Your task to perform on an android device: turn on javascript in the chrome app Image 0: 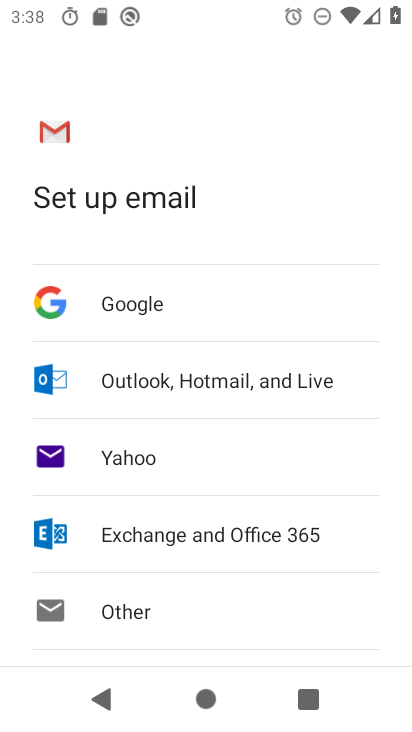
Step 0: press home button
Your task to perform on an android device: turn on javascript in the chrome app Image 1: 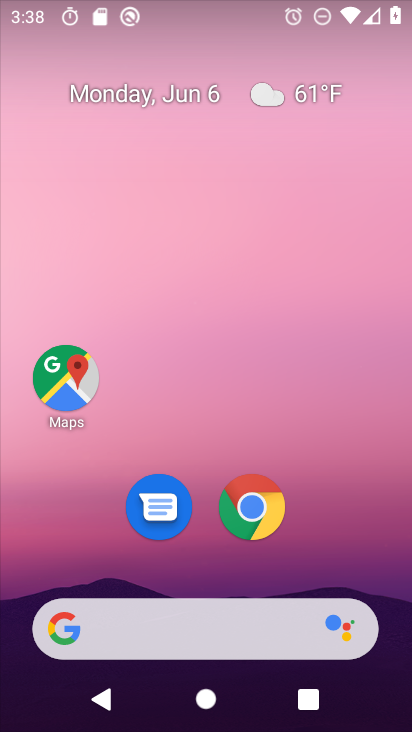
Step 1: click (256, 512)
Your task to perform on an android device: turn on javascript in the chrome app Image 2: 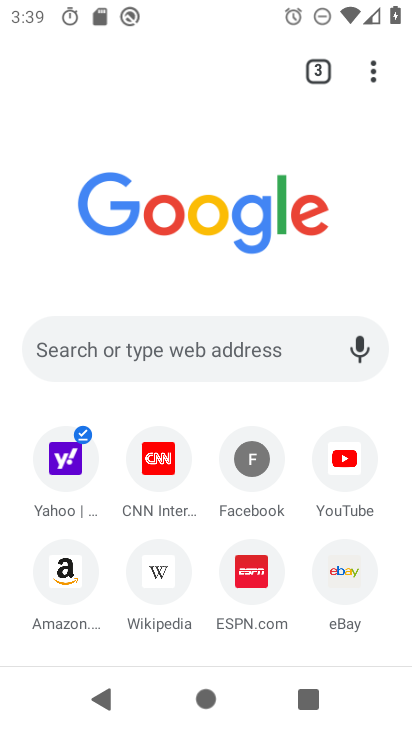
Step 2: click (378, 77)
Your task to perform on an android device: turn on javascript in the chrome app Image 3: 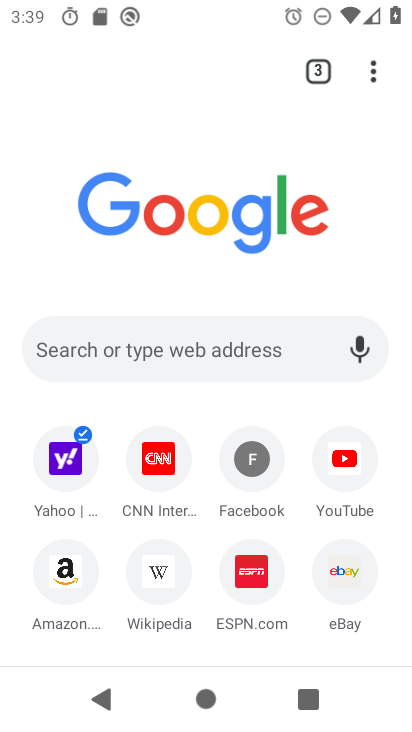
Step 3: drag from (370, 73) to (136, 510)
Your task to perform on an android device: turn on javascript in the chrome app Image 4: 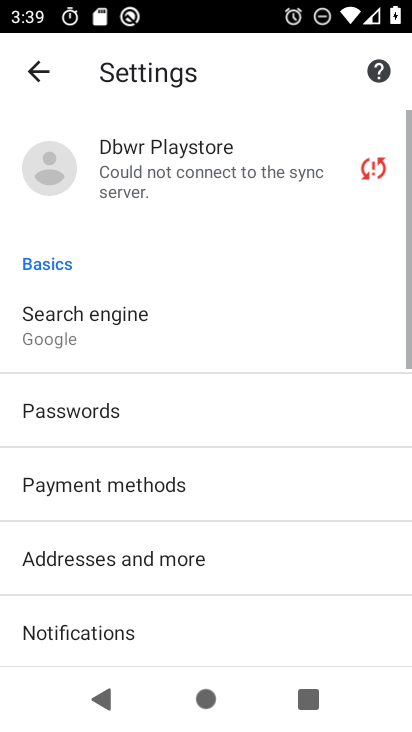
Step 4: drag from (192, 580) to (235, 308)
Your task to perform on an android device: turn on javascript in the chrome app Image 5: 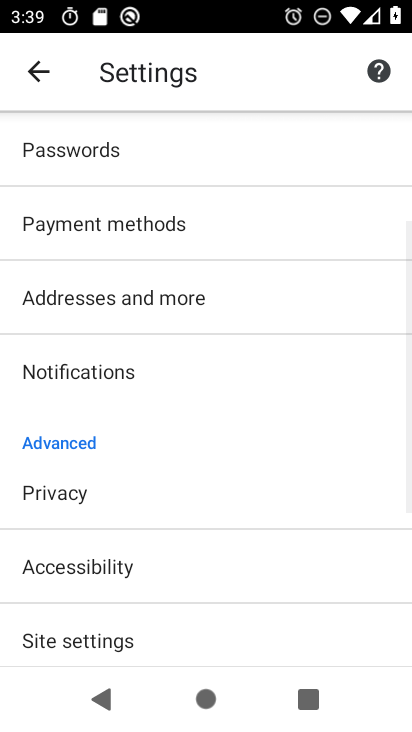
Step 5: drag from (166, 598) to (219, 389)
Your task to perform on an android device: turn on javascript in the chrome app Image 6: 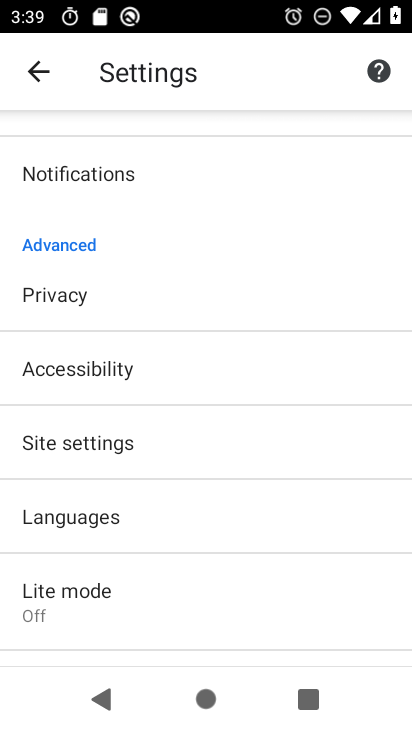
Step 6: click (134, 462)
Your task to perform on an android device: turn on javascript in the chrome app Image 7: 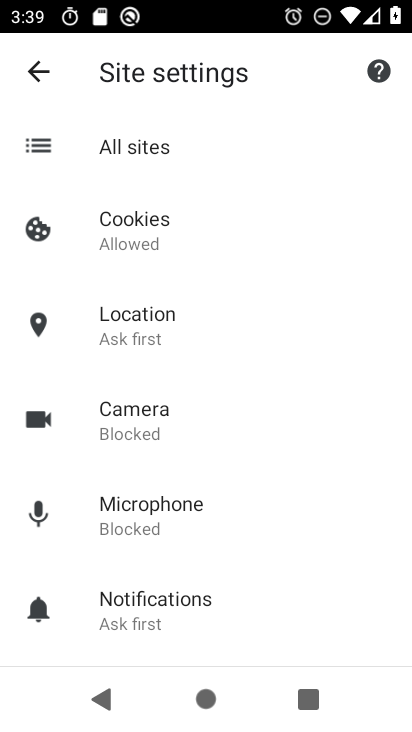
Step 7: drag from (218, 519) to (285, 246)
Your task to perform on an android device: turn on javascript in the chrome app Image 8: 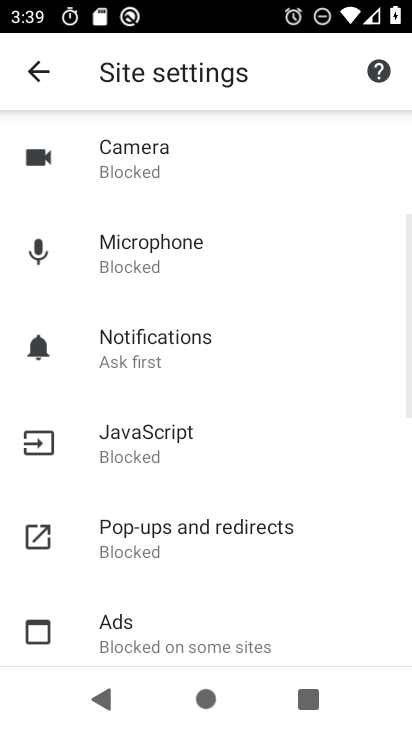
Step 8: click (179, 440)
Your task to perform on an android device: turn on javascript in the chrome app Image 9: 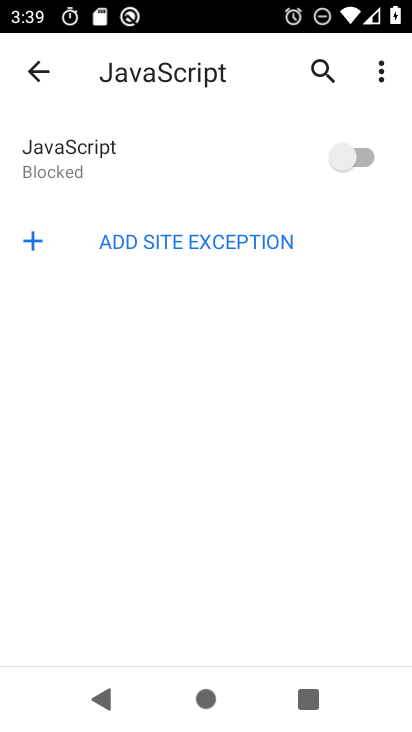
Step 9: click (371, 160)
Your task to perform on an android device: turn on javascript in the chrome app Image 10: 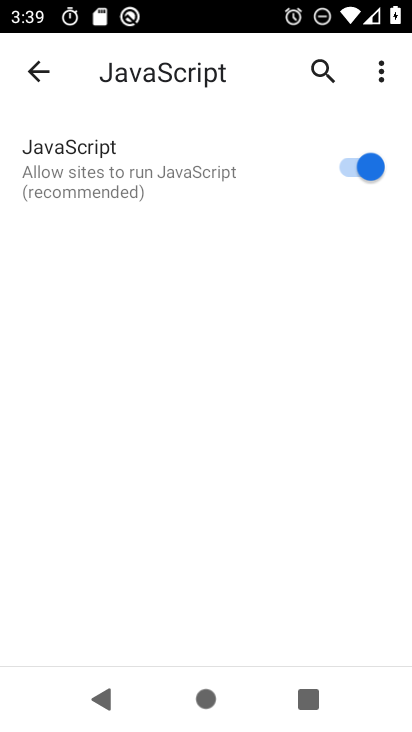
Step 10: task complete